Your task to perform on an android device: Open settings Image 0: 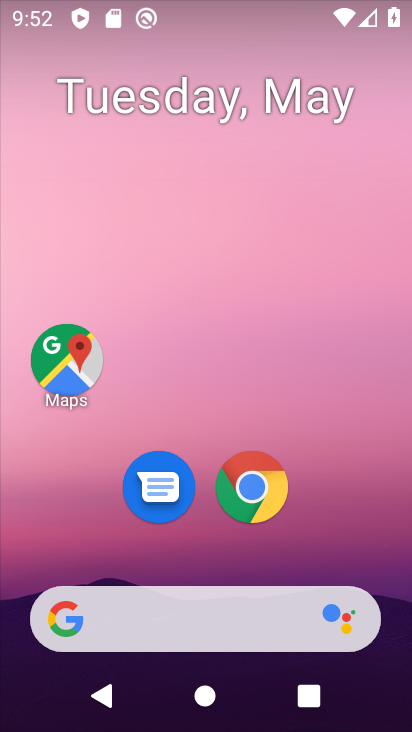
Step 0: drag from (184, 562) to (188, 144)
Your task to perform on an android device: Open settings Image 1: 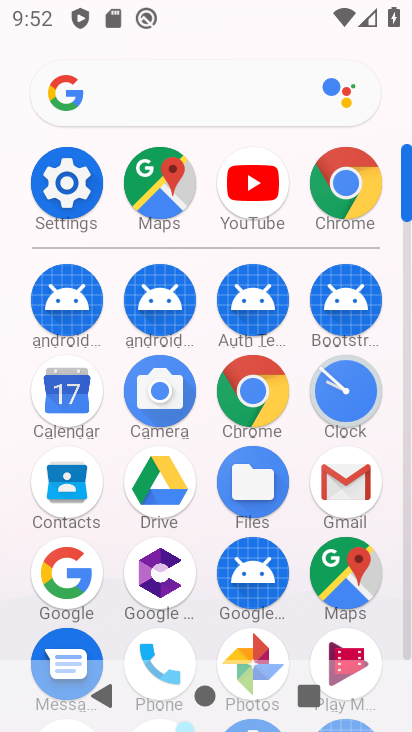
Step 1: click (63, 171)
Your task to perform on an android device: Open settings Image 2: 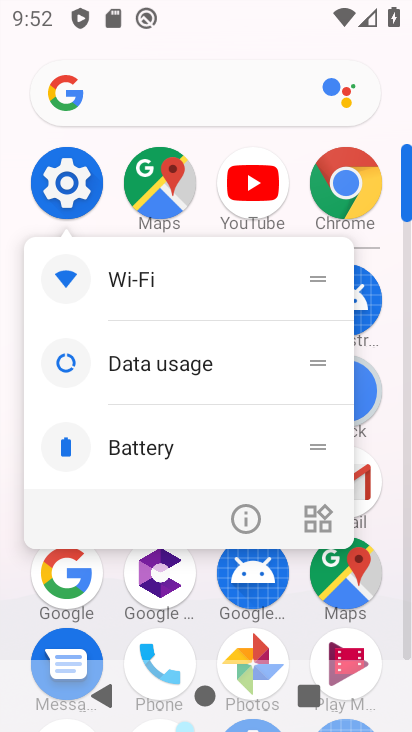
Step 2: click (248, 509)
Your task to perform on an android device: Open settings Image 3: 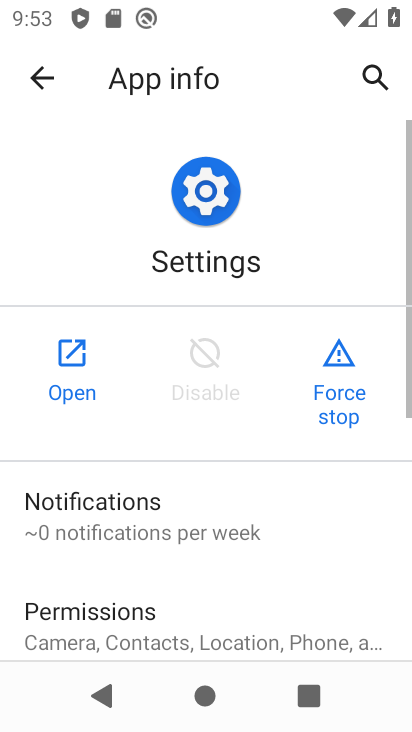
Step 3: click (51, 347)
Your task to perform on an android device: Open settings Image 4: 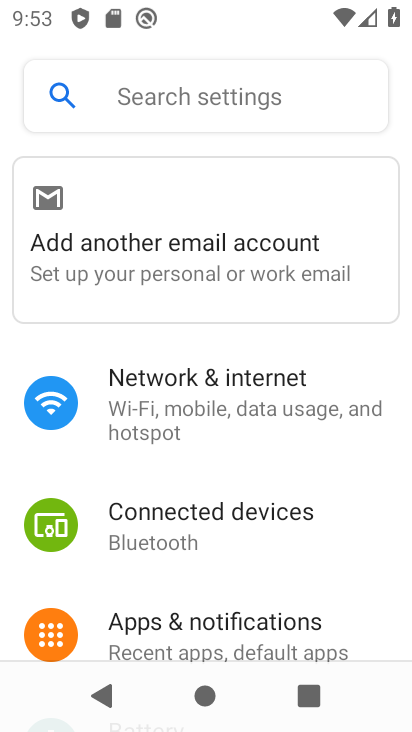
Step 4: task complete